Your task to perform on an android device: check storage Image 0: 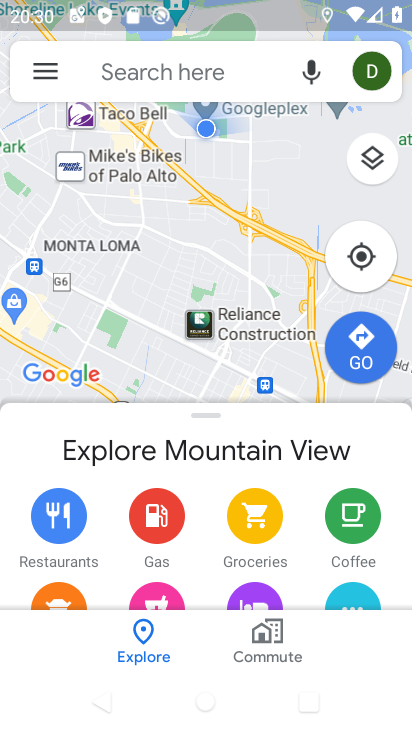
Step 0: press home button
Your task to perform on an android device: check storage Image 1: 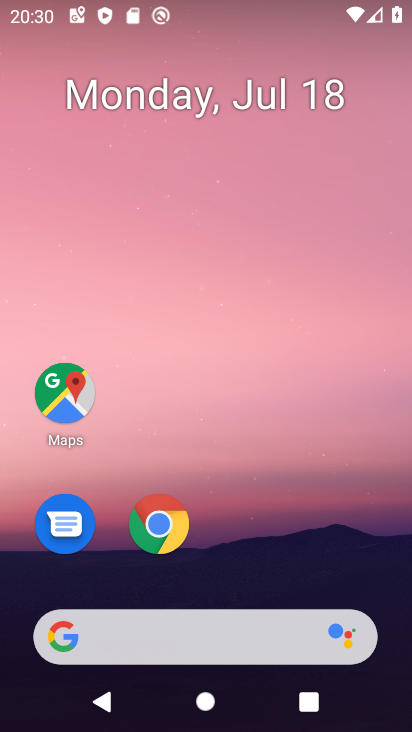
Step 1: drag from (298, 509) to (259, 70)
Your task to perform on an android device: check storage Image 2: 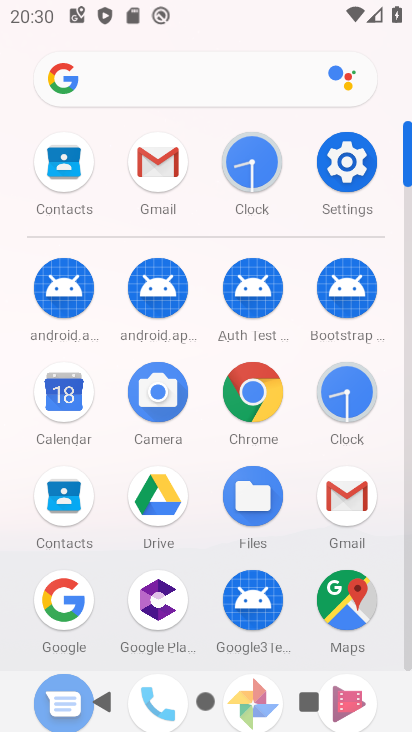
Step 2: click (350, 162)
Your task to perform on an android device: check storage Image 3: 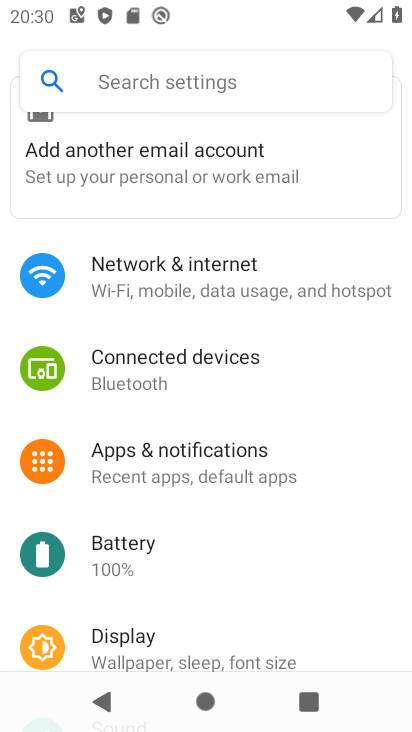
Step 3: drag from (220, 552) to (235, 42)
Your task to perform on an android device: check storage Image 4: 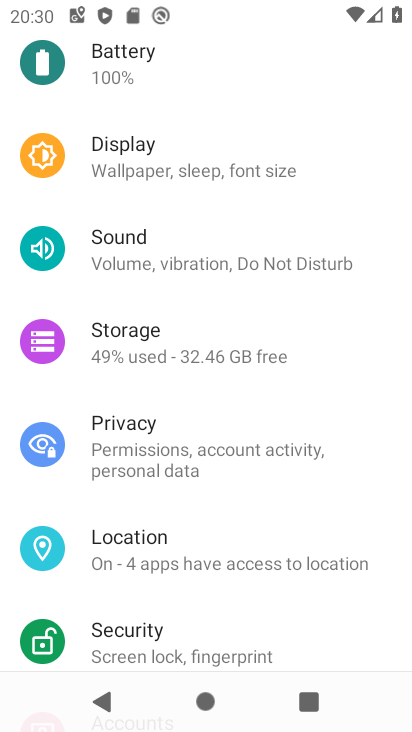
Step 4: click (207, 350)
Your task to perform on an android device: check storage Image 5: 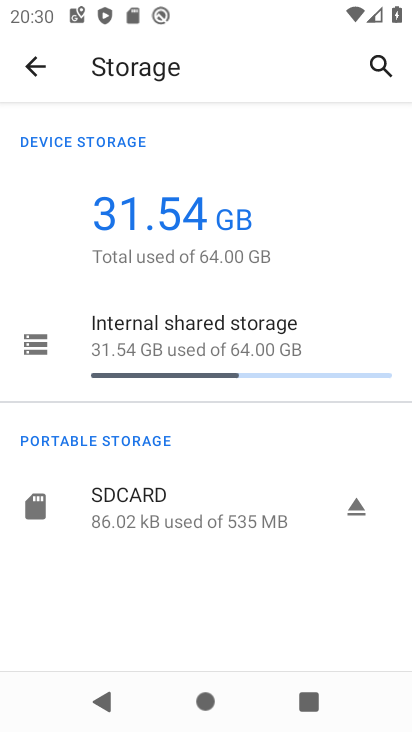
Step 5: task complete